Your task to perform on an android device: see creations saved in the google photos Image 0: 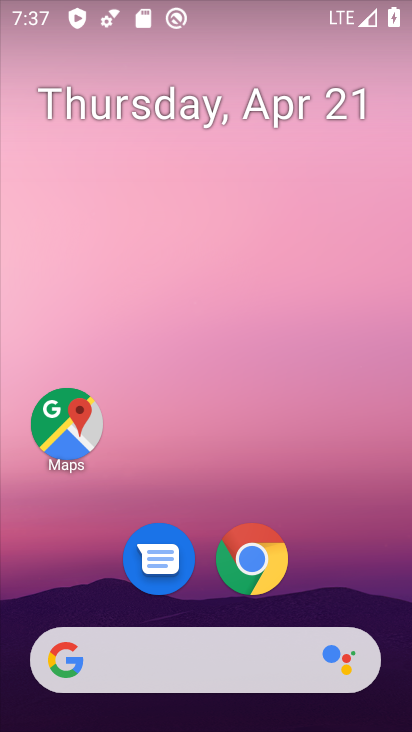
Step 0: drag from (377, 533) to (368, 120)
Your task to perform on an android device: see creations saved in the google photos Image 1: 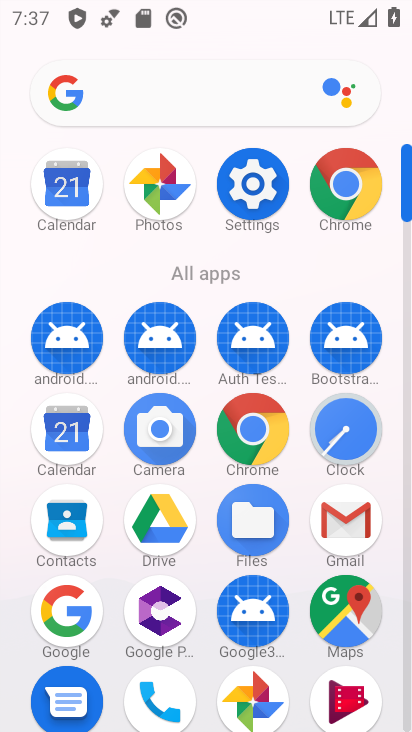
Step 1: click (255, 691)
Your task to perform on an android device: see creations saved in the google photos Image 2: 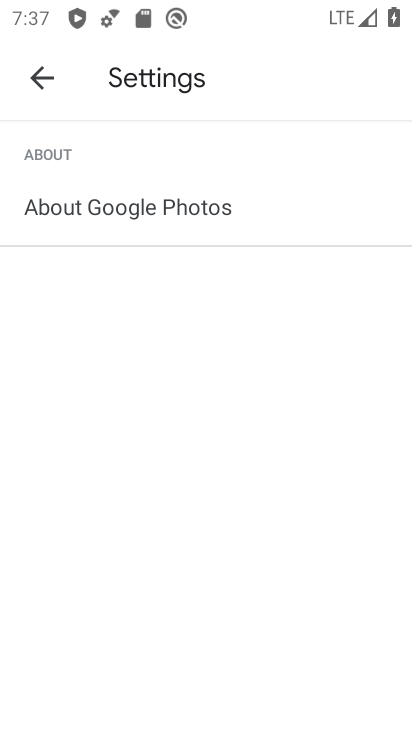
Step 2: click (54, 60)
Your task to perform on an android device: see creations saved in the google photos Image 3: 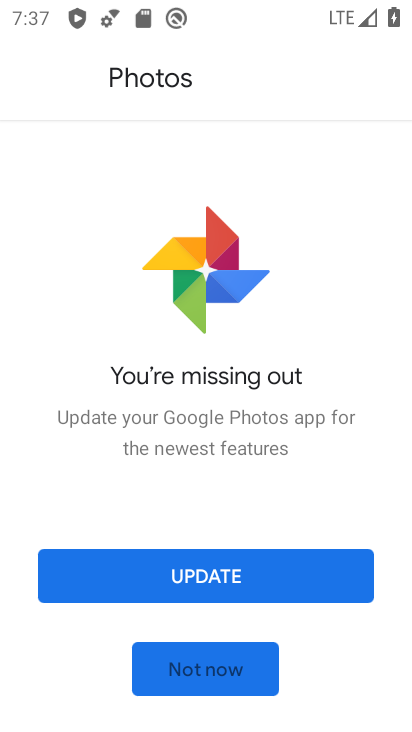
Step 3: click (246, 584)
Your task to perform on an android device: see creations saved in the google photos Image 4: 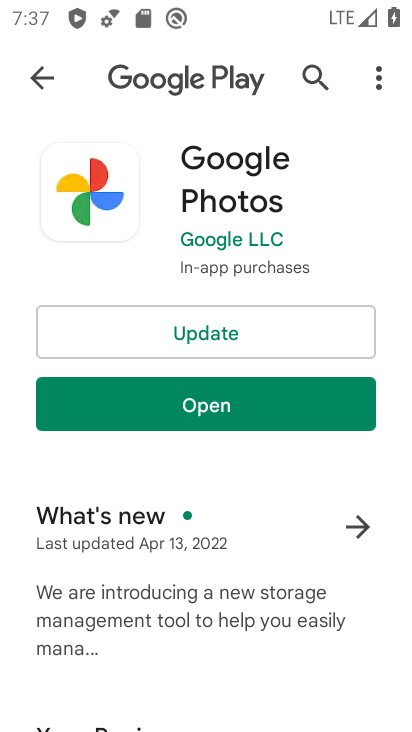
Step 4: click (271, 326)
Your task to perform on an android device: see creations saved in the google photos Image 5: 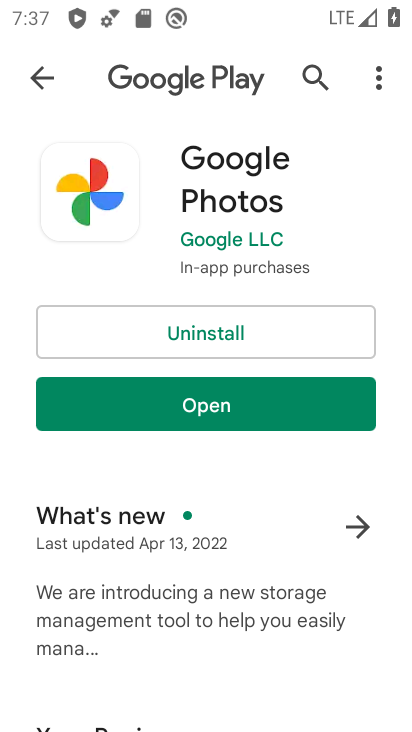
Step 5: click (217, 419)
Your task to perform on an android device: see creations saved in the google photos Image 6: 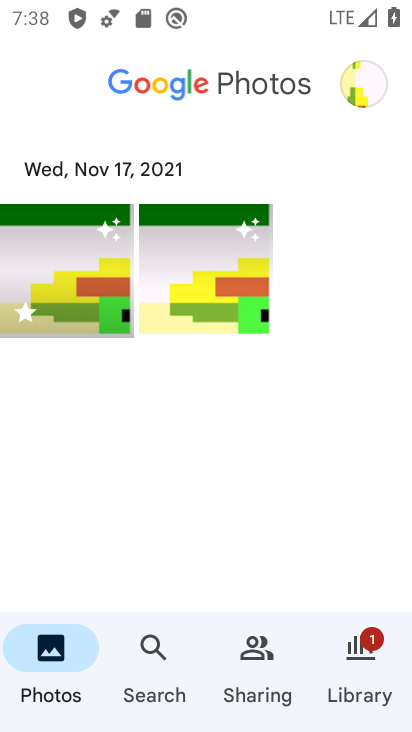
Step 6: click (156, 654)
Your task to perform on an android device: see creations saved in the google photos Image 7: 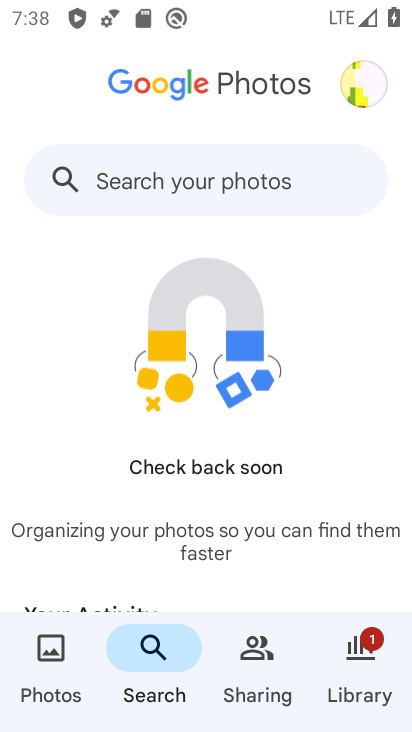
Step 7: click (209, 180)
Your task to perform on an android device: see creations saved in the google photos Image 8: 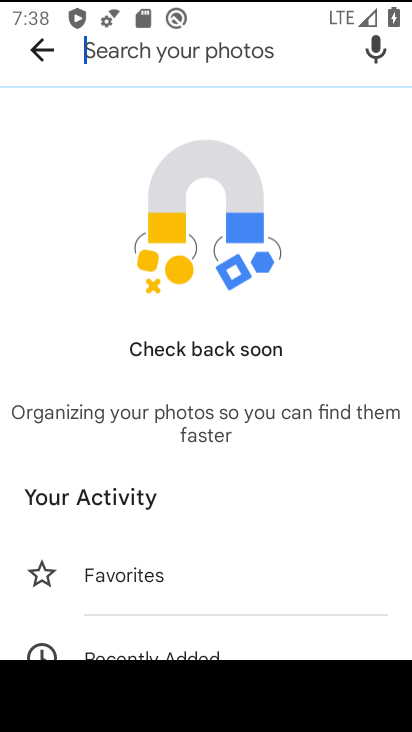
Step 8: type "creations"
Your task to perform on an android device: see creations saved in the google photos Image 9: 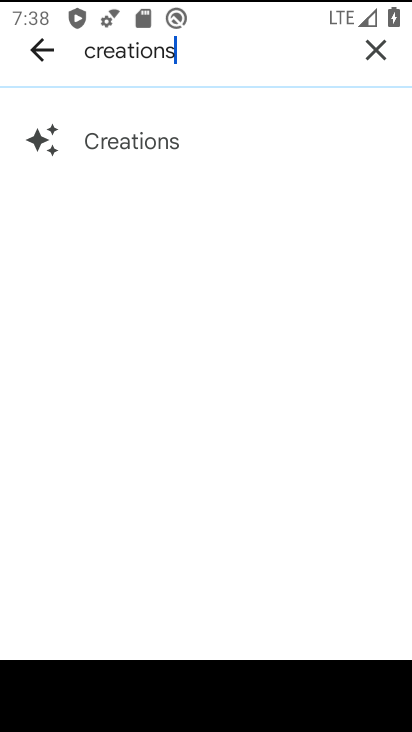
Step 9: click (146, 153)
Your task to perform on an android device: see creations saved in the google photos Image 10: 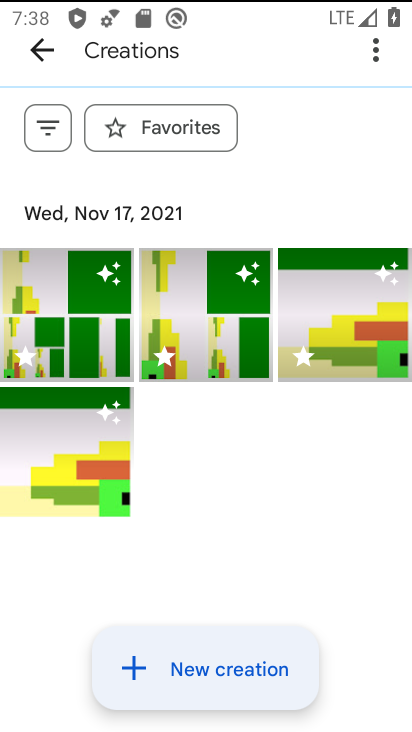
Step 10: task complete